Your task to perform on an android device: turn on improve location accuracy Image 0: 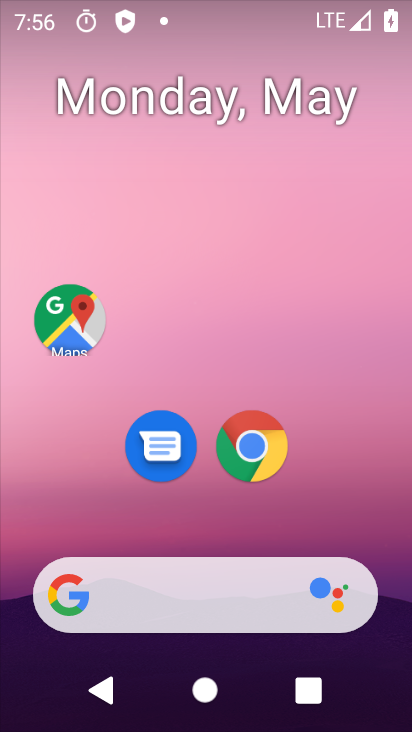
Step 0: drag from (343, 491) to (331, 4)
Your task to perform on an android device: turn on improve location accuracy Image 1: 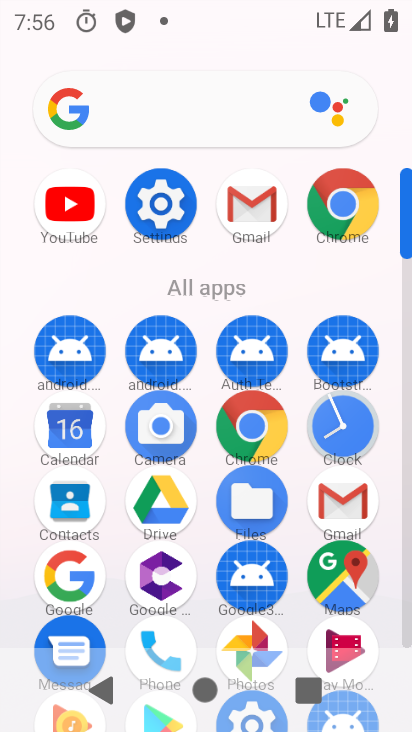
Step 1: click (155, 214)
Your task to perform on an android device: turn on improve location accuracy Image 2: 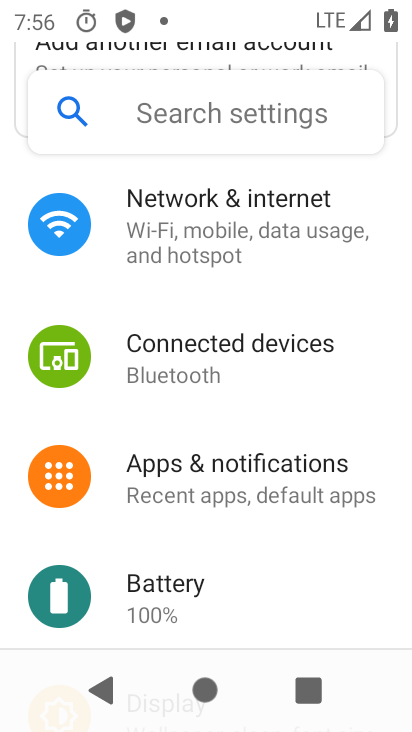
Step 2: drag from (241, 500) to (234, 47)
Your task to perform on an android device: turn on improve location accuracy Image 3: 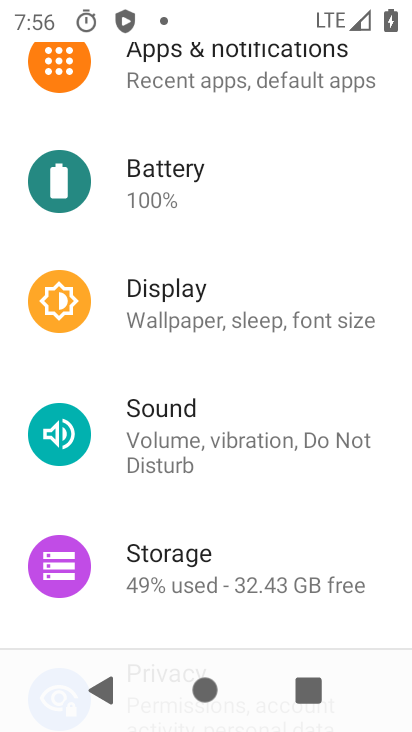
Step 3: drag from (270, 448) to (260, 87)
Your task to perform on an android device: turn on improve location accuracy Image 4: 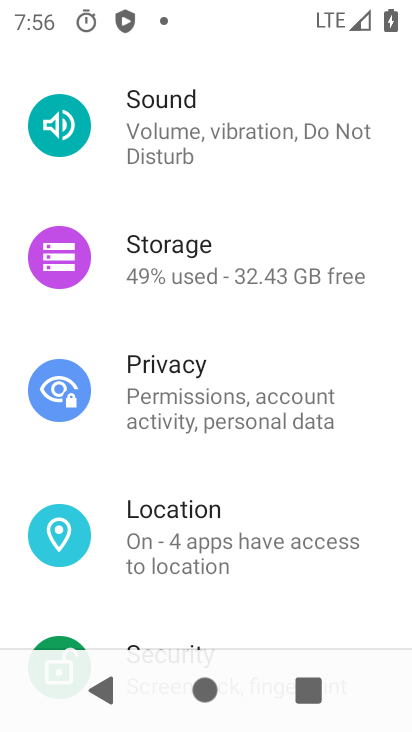
Step 4: click (150, 532)
Your task to perform on an android device: turn on improve location accuracy Image 5: 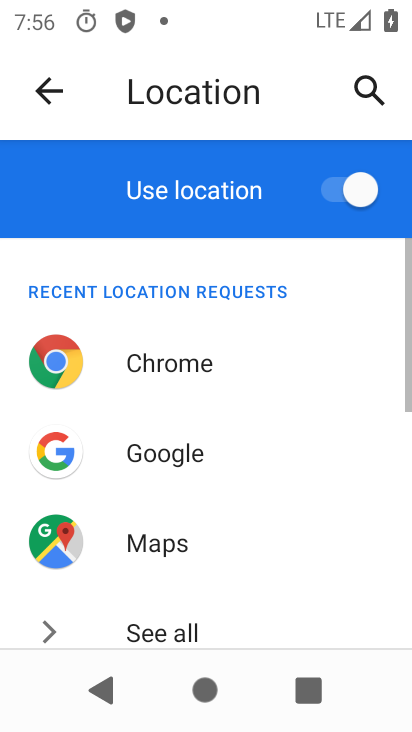
Step 5: drag from (233, 563) to (250, 63)
Your task to perform on an android device: turn on improve location accuracy Image 6: 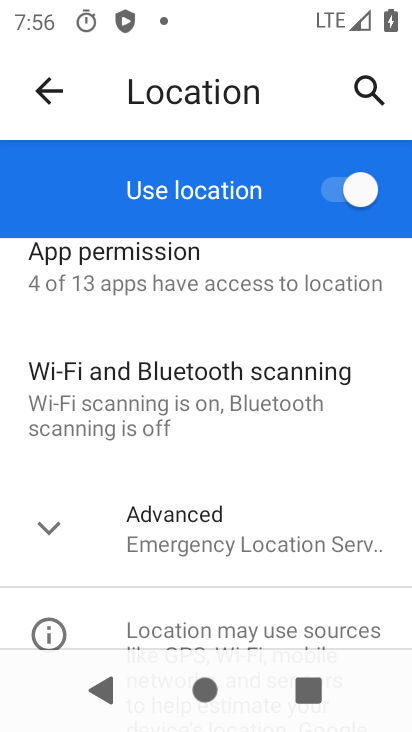
Step 6: click (48, 538)
Your task to perform on an android device: turn on improve location accuracy Image 7: 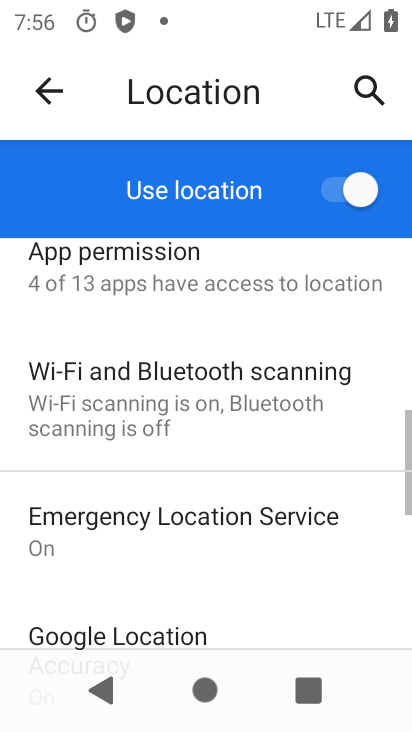
Step 7: drag from (179, 538) to (203, 116)
Your task to perform on an android device: turn on improve location accuracy Image 8: 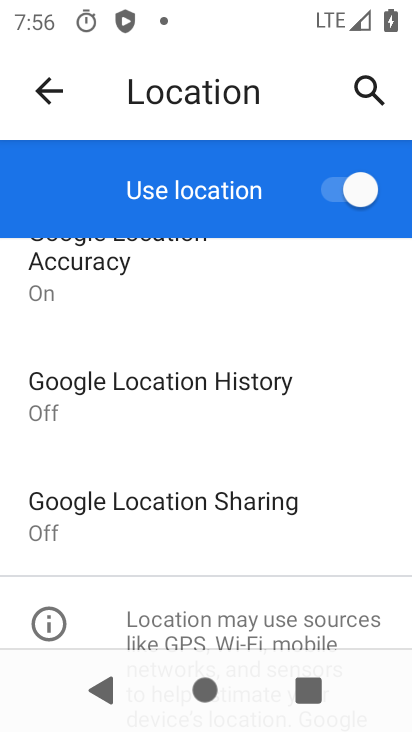
Step 8: click (73, 262)
Your task to perform on an android device: turn on improve location accuracy Image 9: 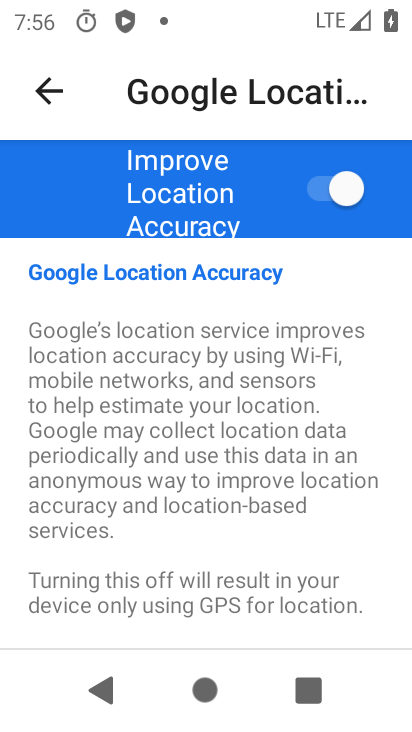
Step 9: task complete